Your task to perform on an android device: Search for vegetarian restaurants on Maps Image 0: 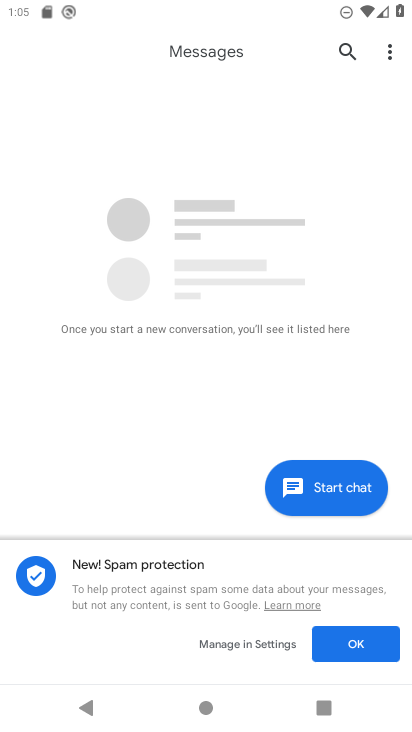
Step 0: press home button
Your task to perform on an android device: Search for vegetarian restaurants on Maps Image 1: 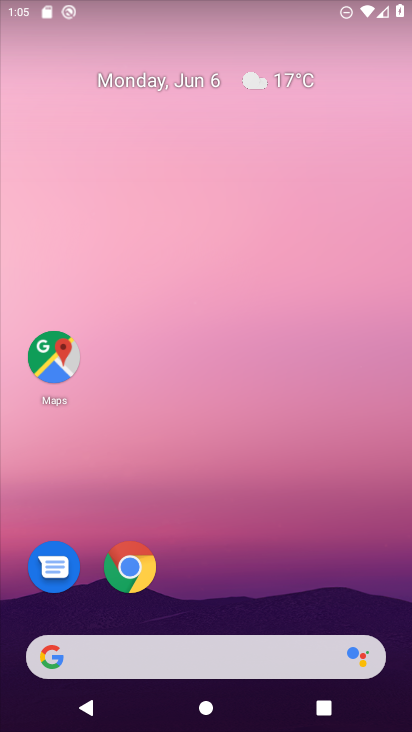
Step 1: drag from (234, 725) to (198, 37)
Your task to perform on an android device: Search for vegetarian restaurants on Maps Image 2: 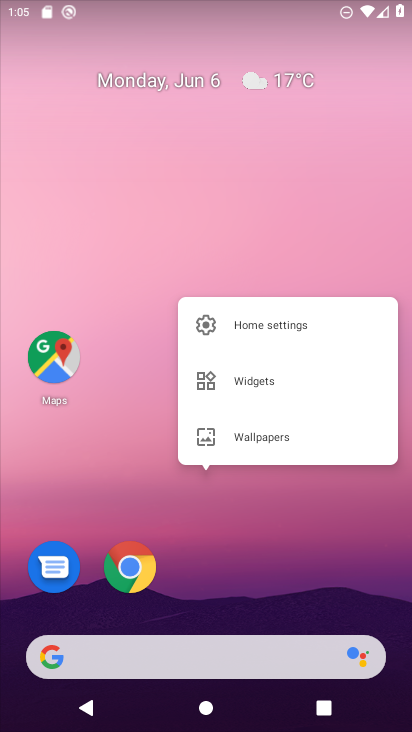
Step 2: drag from (266, 545) to (239, 112)
Your task to perform on an android device: Search for vegetarian restaurants on Maps Image 3: 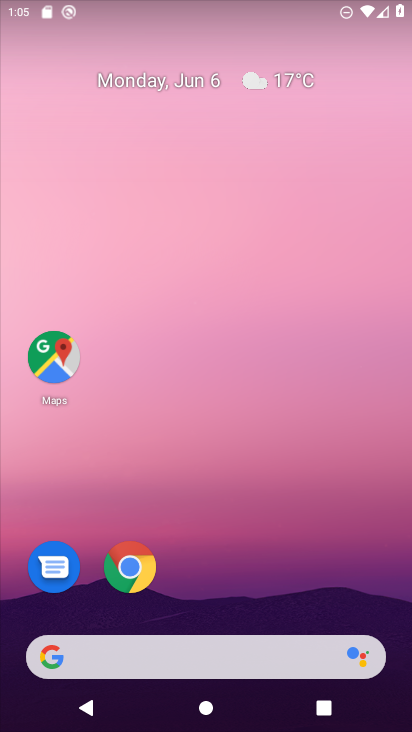
Step 3: drag from (244, 719) to (226, 109)
Your task to perform on an android device: Search for vegetarian restaurants on Maps Image 4: 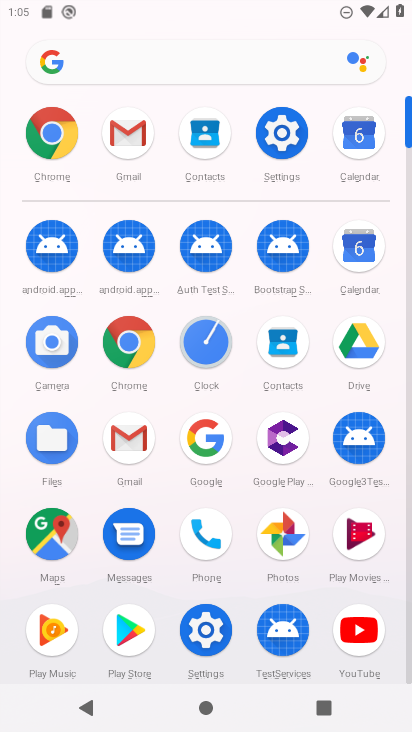
Step 4: click (59, 524)
Your task to perform on an android device: Search for vegetarian restaurants on Maps Image 5: 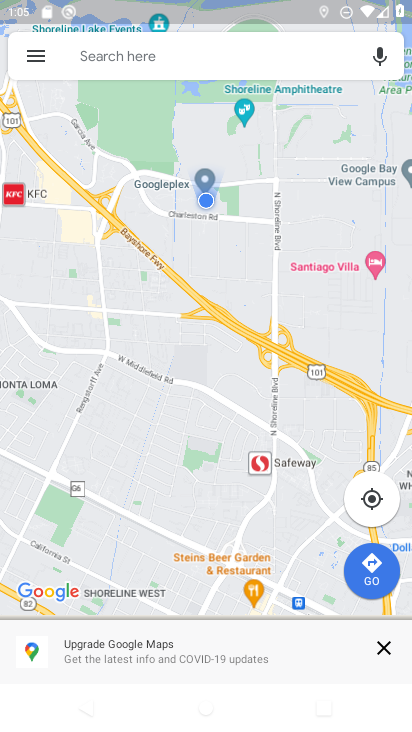
Step 5: click (202, 59)
Your task to perform on an android device: Search for vegetarian restaurants on Maps Image 6: 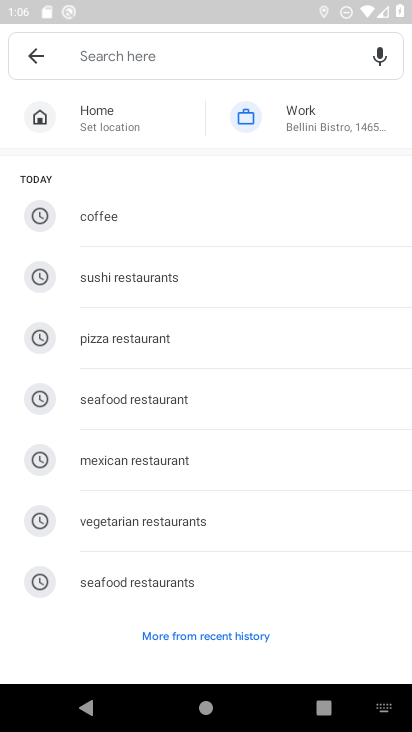
Step 6: type "vegetarian restaurants"
Your task to perform on an android device: Search for vegetarian restaurants on Maps Image 7: 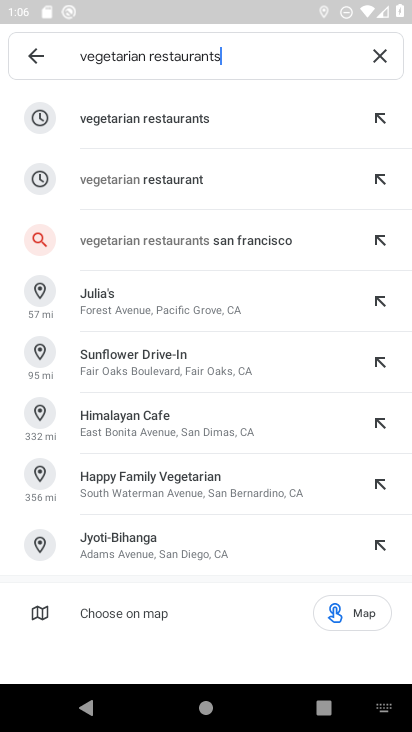
Step 7: click (189, 116)
Your task to perform on an android device: Search for vegetarian restaurants on Maps Image 8: 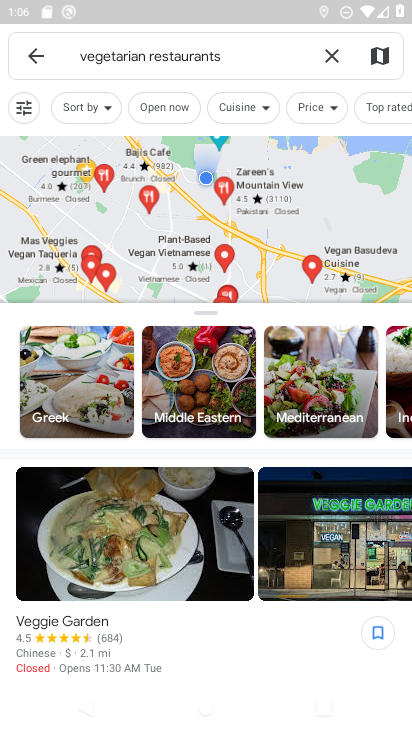
Step 8: task complete